Your task to perform on an android device: Open calendar and show me the second week of next month Image 0: 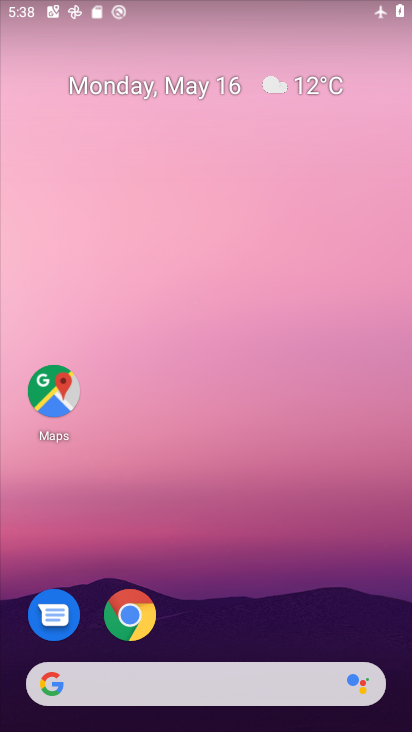
Step 0: drag from (203, 630) to (293, 65)
Your task to perform on an android device: Open calendar and show me the second week of next month Image 1: 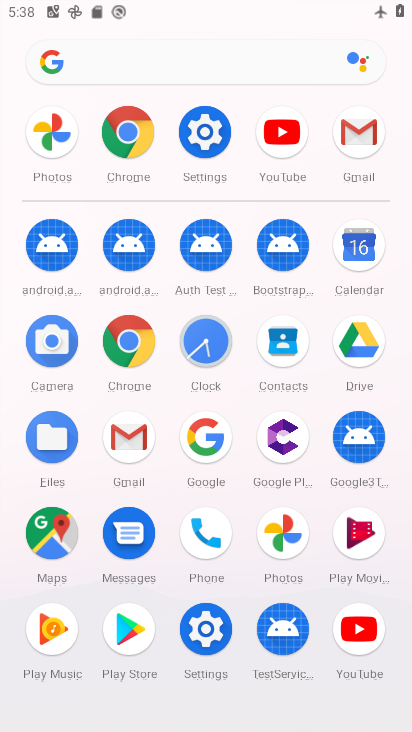
Step 1: click (366, 275)
Your task to perform on an android device: Open calendar and show me the second week of next month Image 2: 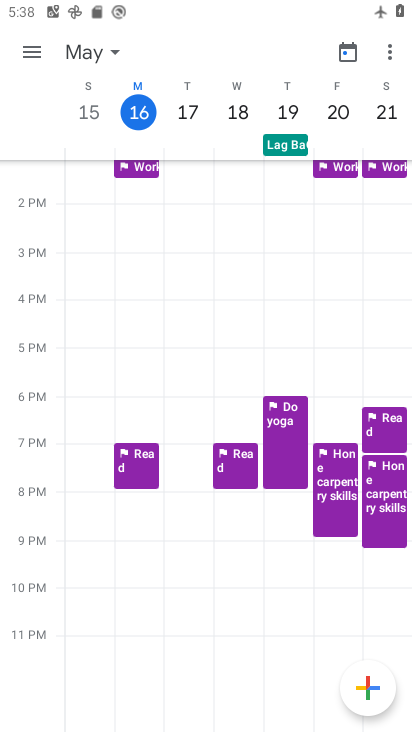
Step 2: click (83, 56)
Your task to perform on an android device: Open calendar and show me the second week of next month Image 3: 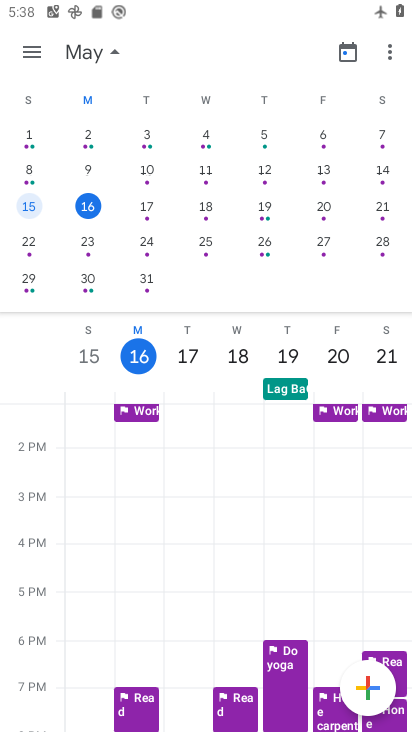
Step 3: click (33, 57)
Your task to perform on an android device: Open calendar and show me the second week of next month Image 4: 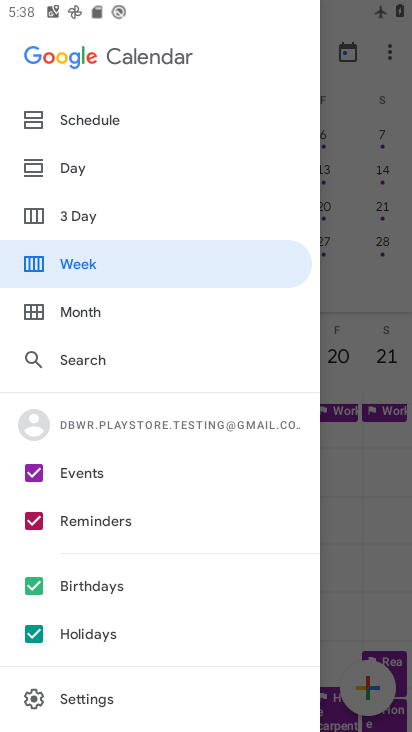
Step 4: click (104, 268)
Your task to perform on an android device: Open calendar and show me the second week of next month Image 5: 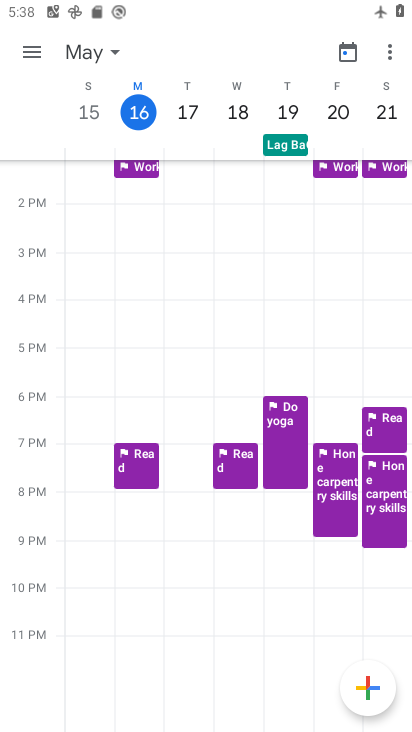
Step 5: click (81, 62)
Your task to perform on an android device: Open calendar and show me the second week of next month Image 6: 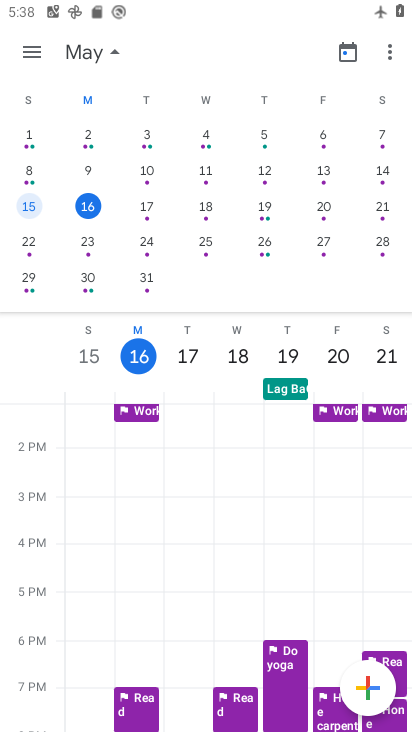
Step 6: drag from (313, 208) to (58, 211)
Your task to perform on an android device: Open calendar and show me the second week of next month Image 7: 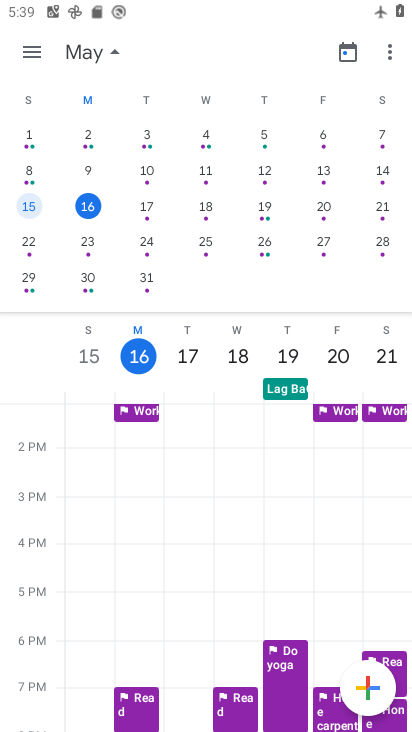
Step 7: drag from (269, 209) to (28, 193)
Your task to perform on an android device: Open calendar and show me the second week of next month Image 8: 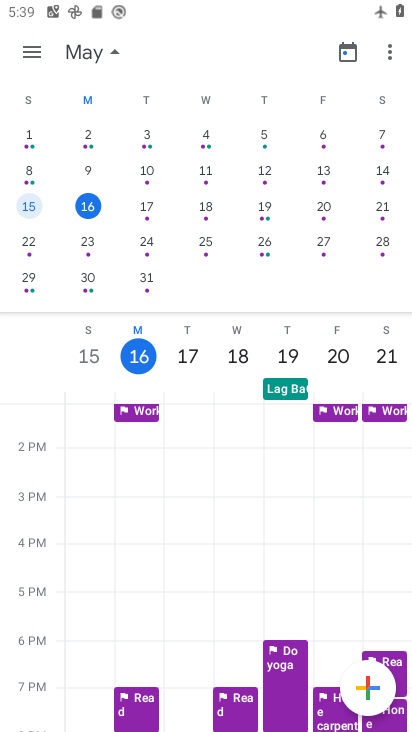
Step 8: drag from (333, 184) to (30, 185)
Your task to perform on an android device: Open calendar and show me the second week of next month Image 9: 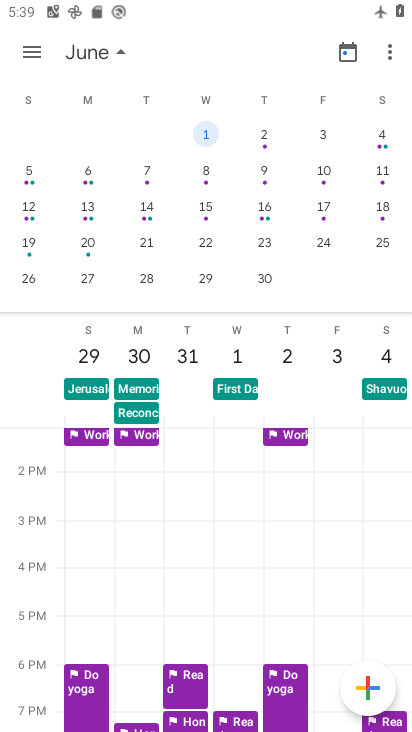
Step 9: click (30, 183)
Your task to perform on an android device: Open calendar and show me the second week of next month Image 10: 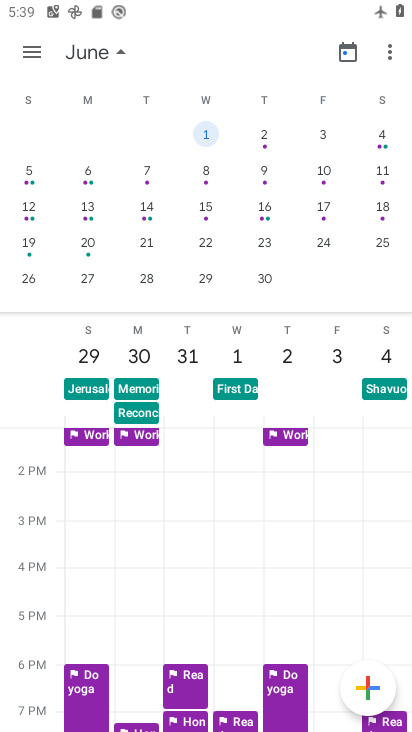
Step 10: click (30, 183)
Your task to perform on an android device: Open calendar and show me the second week of next month Image 11: 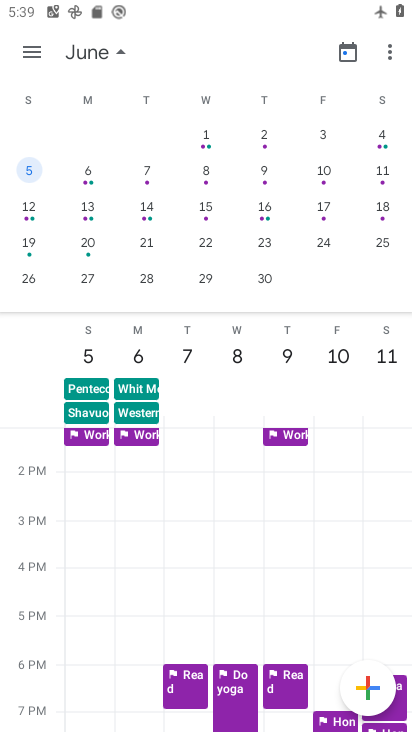
Step 11: task complete